Your task to perform on an android device: toggle wifi Image 0: 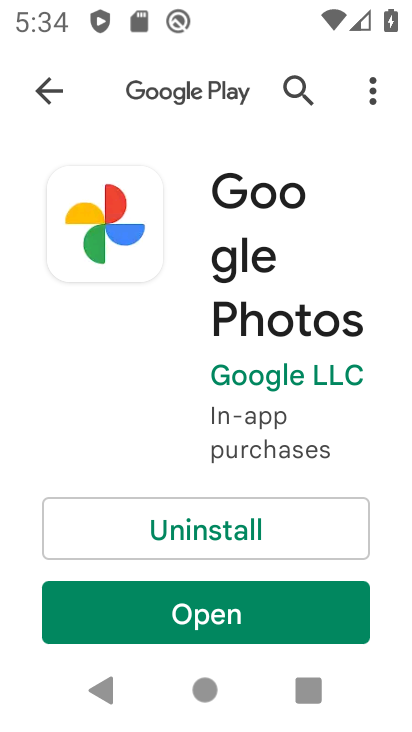
Step 0: drag from (174, 1) to (119, 449)
Your task to perform on an android device: toggle wifi Image 1: 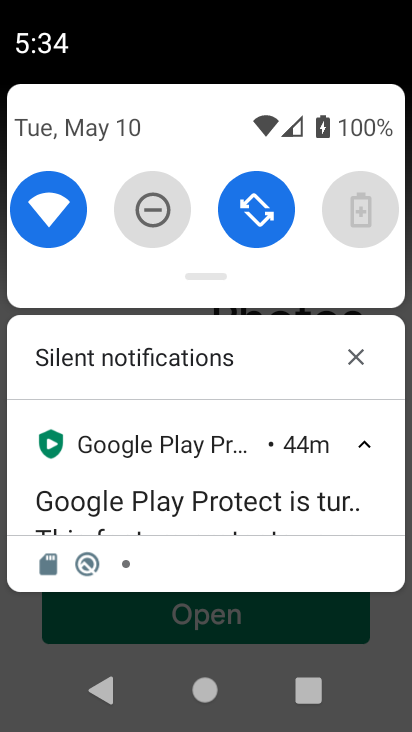
Step 1: click (48, 204)
Your task to perform on an android device: toggle wifi Image 2: 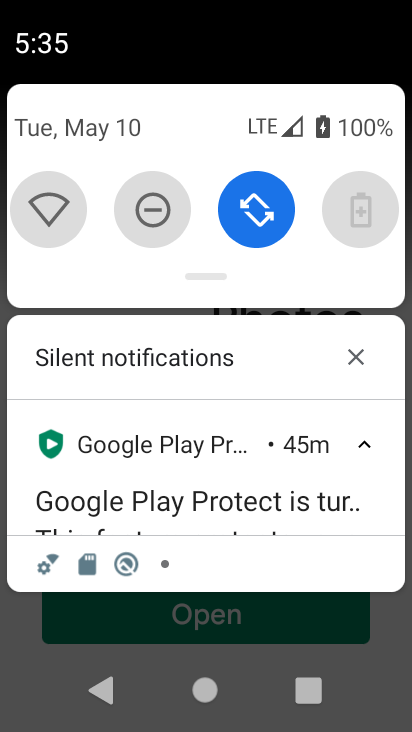
Step 2: task complete